Your task to perform on an android device: toggle data saver in the chrome app Image 0: 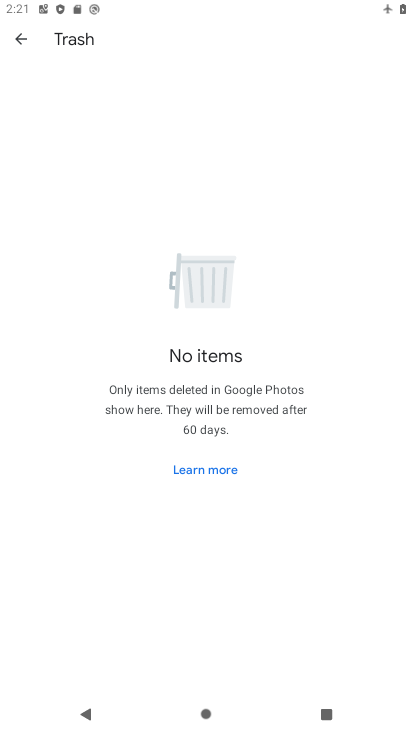
Step 0: press home button
Your task to perform on an android device: toggle data saver in the chrome app Image 1: 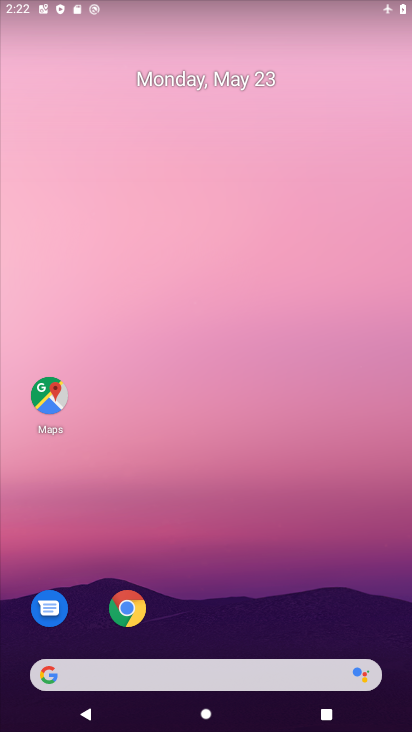
Step 1: drag from (211, 657) to (277, 3)
Your task to perform on an android device: toggle data saver in the chrome app Image 2: 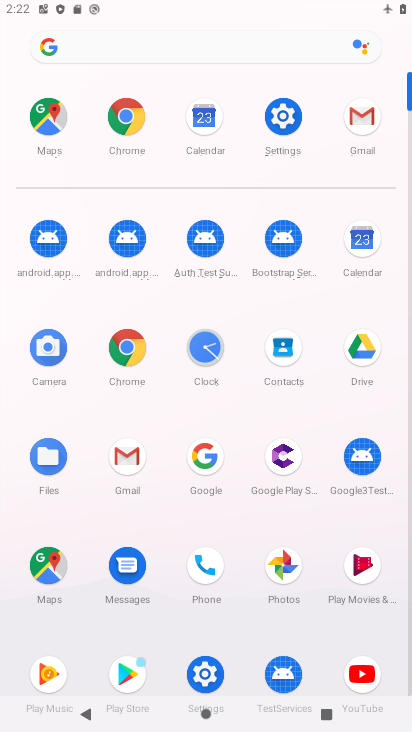
Step 2: click (126, 352)
Your task to perform on an android device: toggle data saver in the chrome app Image 3: 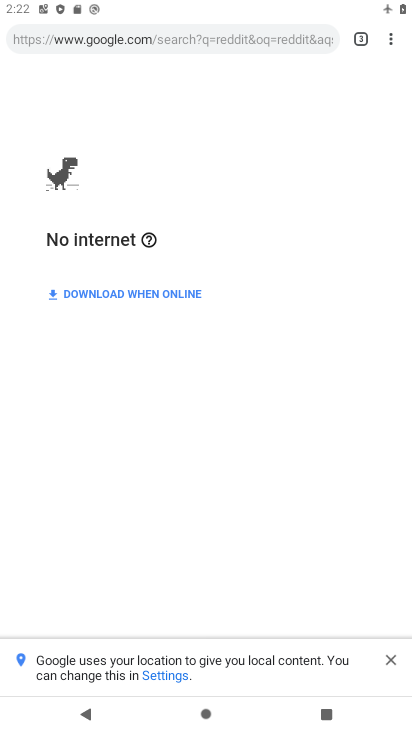
Step 3: click (387, 38)
Your task to perform on an android device: toggle data saver in the chrome app Image 4: 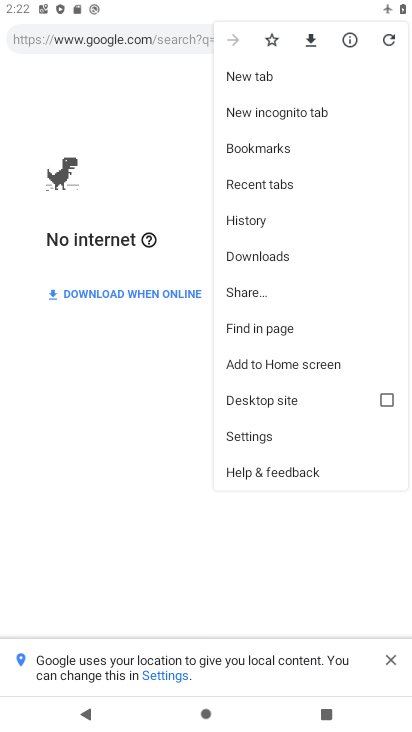
Step 4: click (270, 441)
Your task to perform on an android device: toggle data saver in the chrome app Image 5: 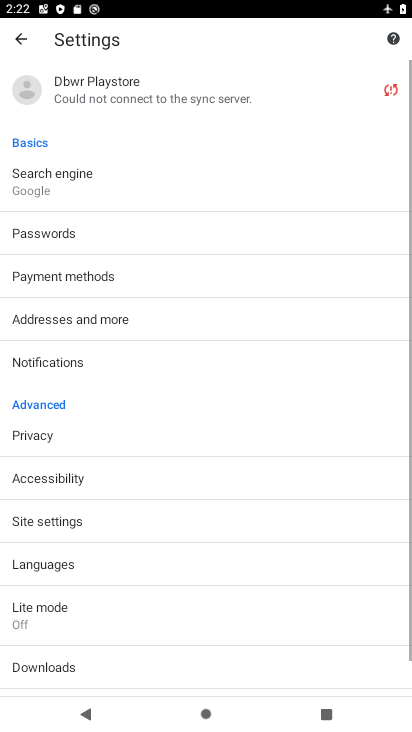
Step 5: drag from (271, 513) to (233, 4)
Your task to perform on an android device: toggle data saver in the chrome app Image 6: 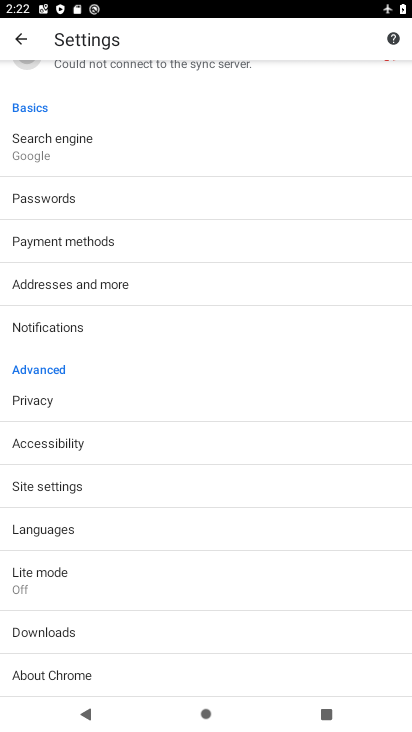
Step 6: drag from (93, 596) to (76, 271)
Your task to perform on an android device: toggle data saver in the chrome app Image 7: 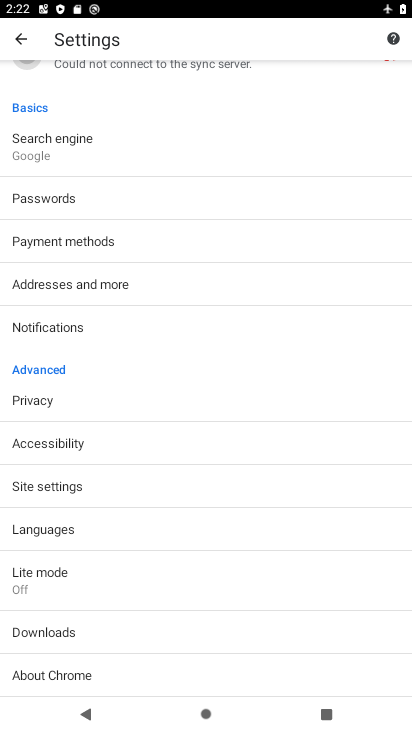
Step 7: click (55, 572)
Your task to perform on an android device: toggle data saver in the chrome app Image 8: 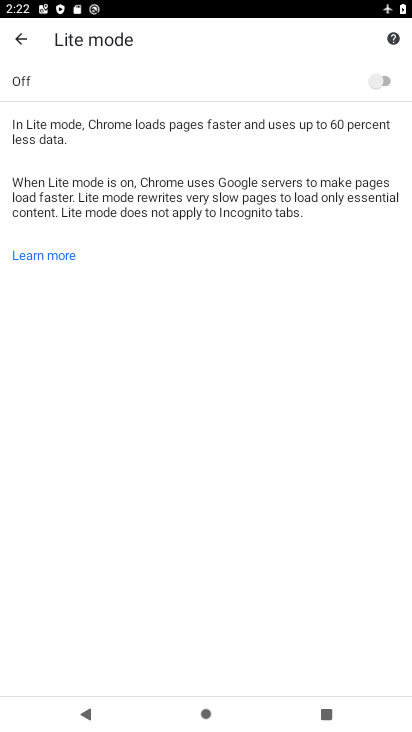
Step 8: click (371, 85)
Your task to perform on an android device: toggle data saver in the chrome app Image 9: 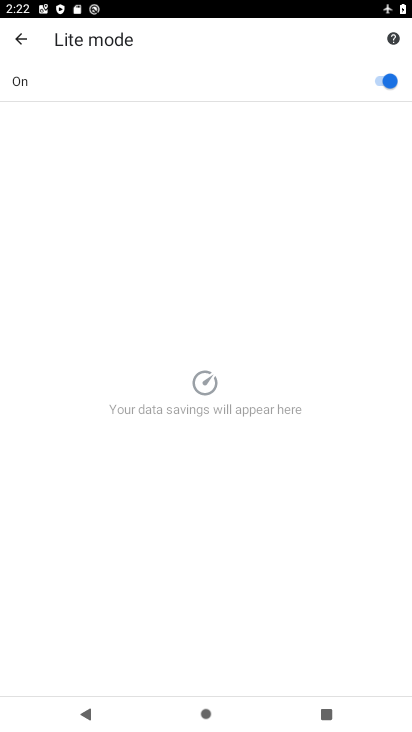
Step 9: task complete